Your task to perform on an android device: turn on showing notifications on the lock screen Image 0: 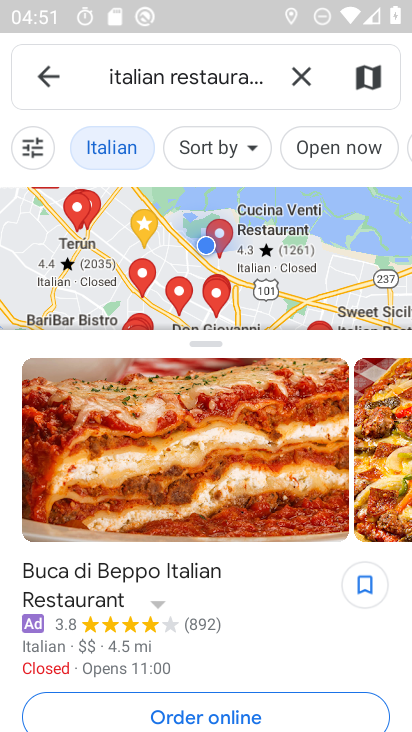
Step 0: press home button
Your task to perform on an android device: turn on showing notifications on the lock screen Image 1: 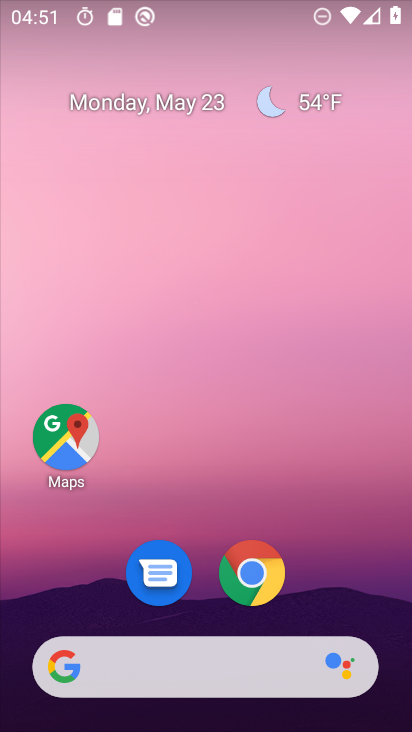
Step 1: drag from (335, 576) to (326, 33)
Your task to perform on an android device: turn on showing notifications on the lock screen Image 2: 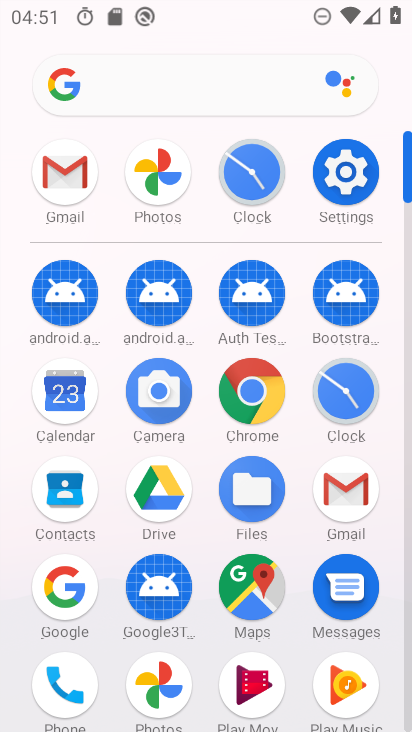
Step 2: click (345, 176)
Your task to perform on an android device: turn on showing notifications on the lock screen Image 3: 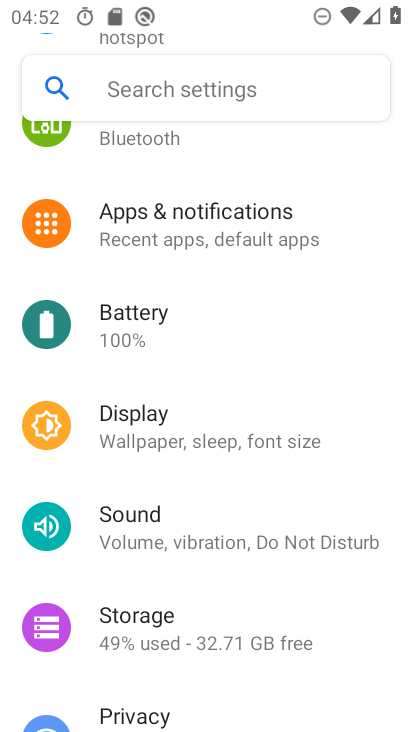
Step 3: click (237, 240)
Your task to perform on an android device: turn on showing notifications on the lock screen Image 4: 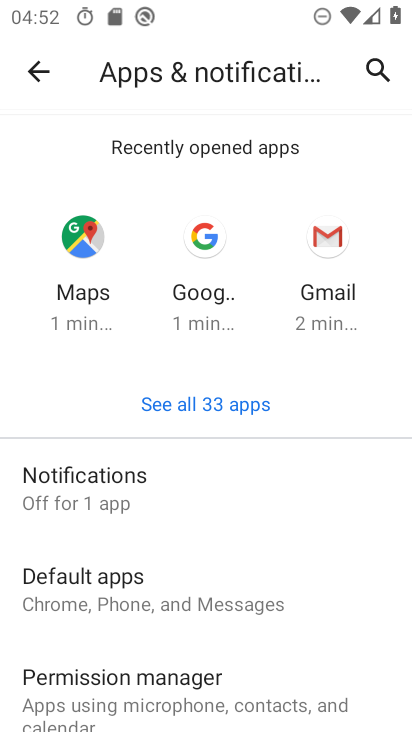
Step 4: click (169, 485)
Your task to perform on an android device: turn on showing notifications on the lock screen Image 5: 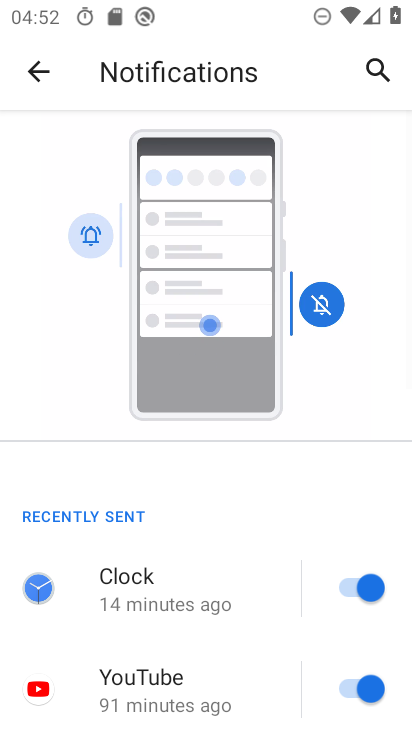
Step 5: drag from (232, 633) to (201, 195)
Your task to perform on an android device: turn on showing notifications on the lock screen Image 6: 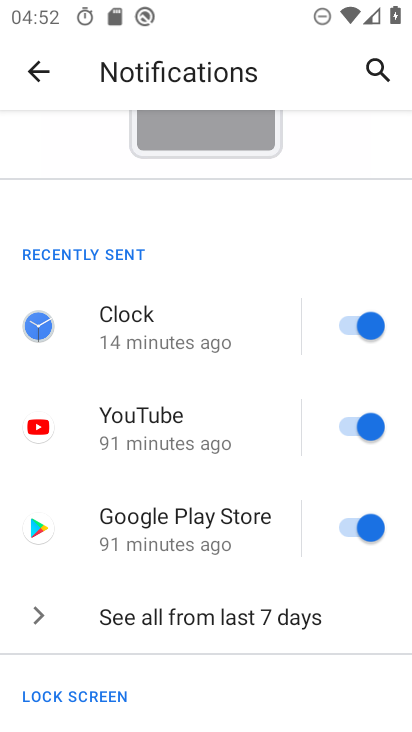
Step 6: drag from (242, 663) to (262, 193)
Your task to perform on an android device: turn on showing notifications on the lock screen Image 7: 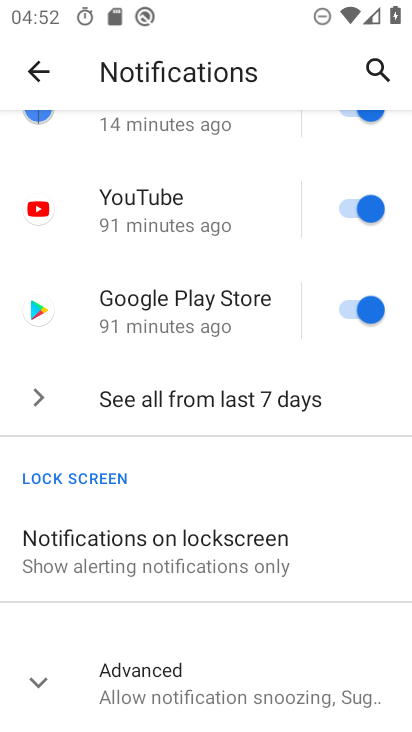
Step 7: click (206, 542)
Your task to perform on an android device: turn on showing notifications on the lock screen Image 8: 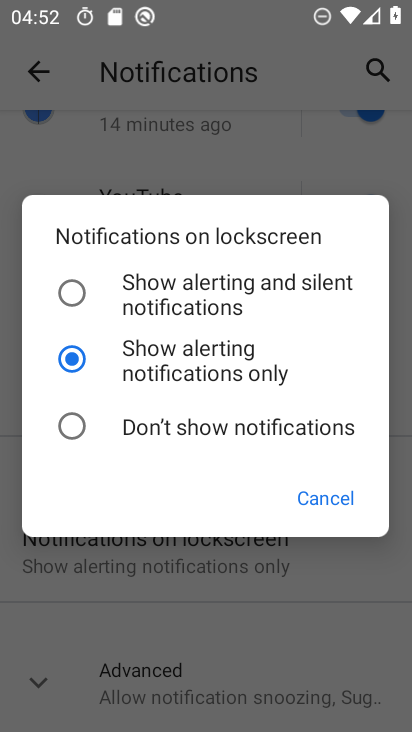
Step 8: click (73, 295)
Your task to perform on an android device: turn on showing notifications on the lock screen Image 9: 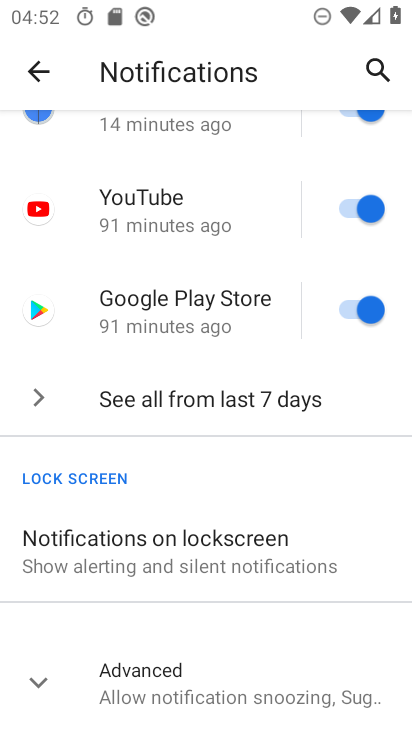
Step 9: click (204, 554)
Your task to perform on an android device: turn on showing notifications on the lock screen Image 10: 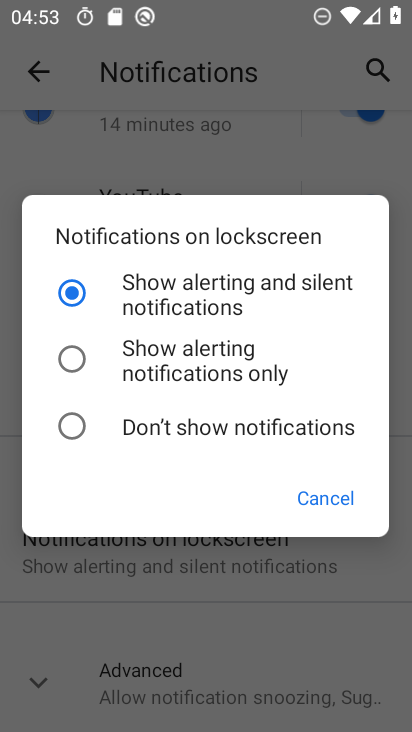
Step 10: click (158, 302)
Your task to perform on an android device: turn on showing notifications on the lock screen Image 11: 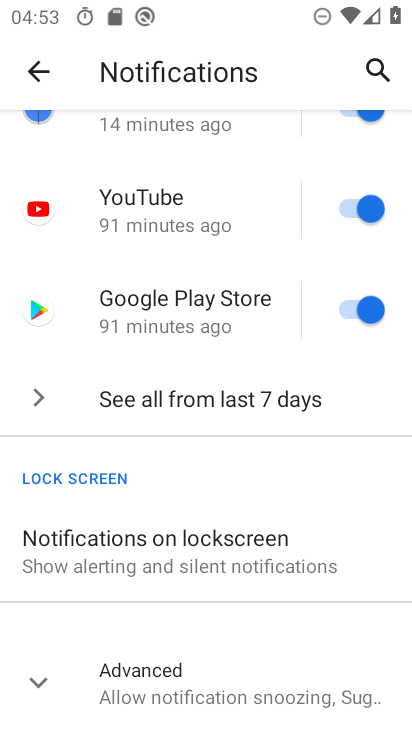
Step 11: task complete